Your task to perform on an android device: install app "DoorDash - Dasher" Image 0: 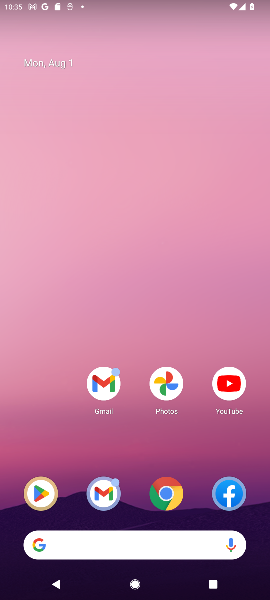
Step 0: drag from (72, 521) to (59, 64)
Your task to perform on an android device: install app "DoorDash - Dasher" Image 1: 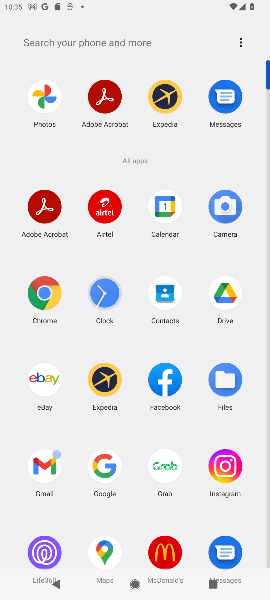
Step 1: task complete